Your task to perform on an android device: check storage Image 0: 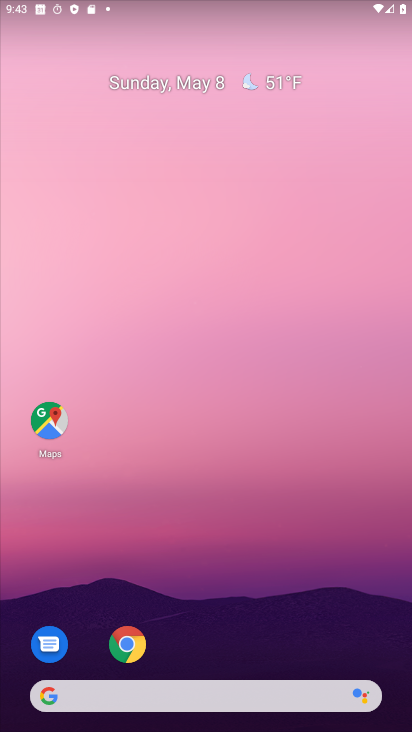
Step 0: drag from (205, 655) to (231, 186)
Your task to perform on an android device: check storage Image 1: 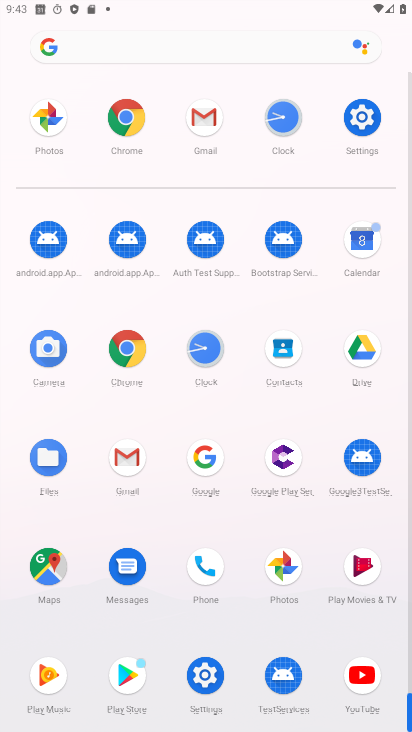
Step 1: click (205, 686)
Your task to perform on an android device: check storage Image 2: 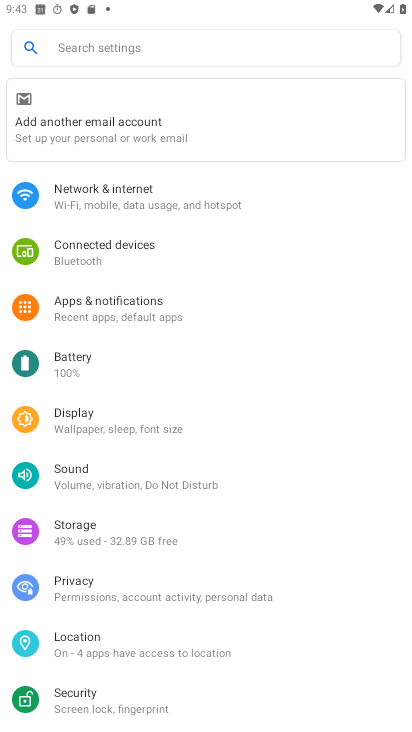
Step 2: click (92, 533)
Your task to perform on an android device: check storage Image 3: 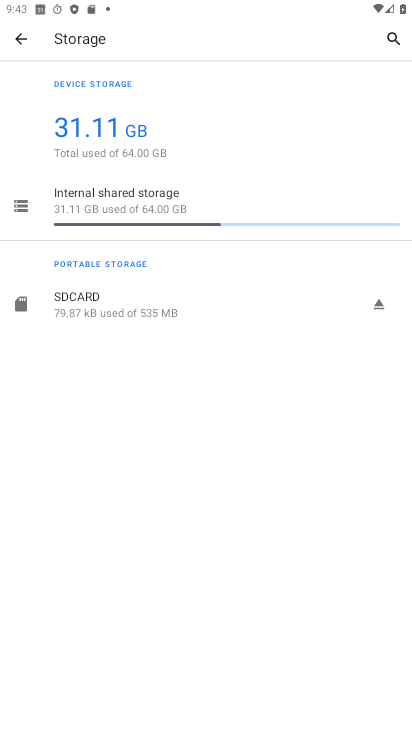
Step 3: click (175, 132)
Your task to perform on an android device: check storage Image 4: 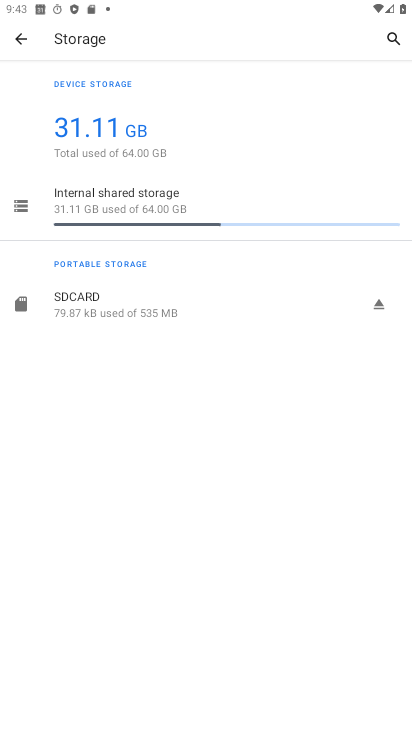
Step 4: task complete